Your task to perform on an android device: What is the capital of India? Image 0: 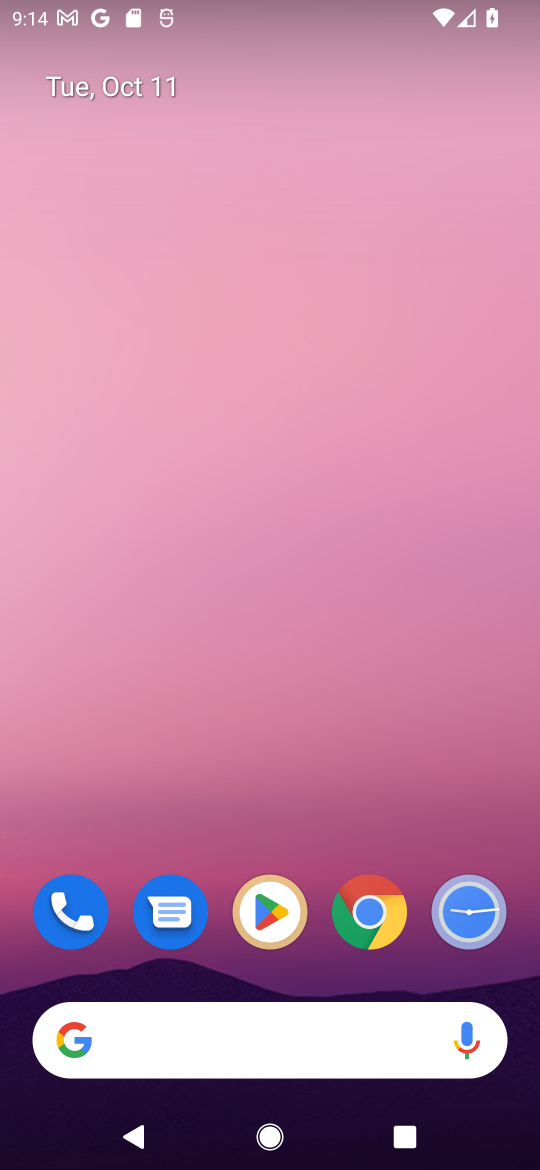
Step 0: click (374, 911)
Your task to perform on an android device: What is the capital of India? Image 1: 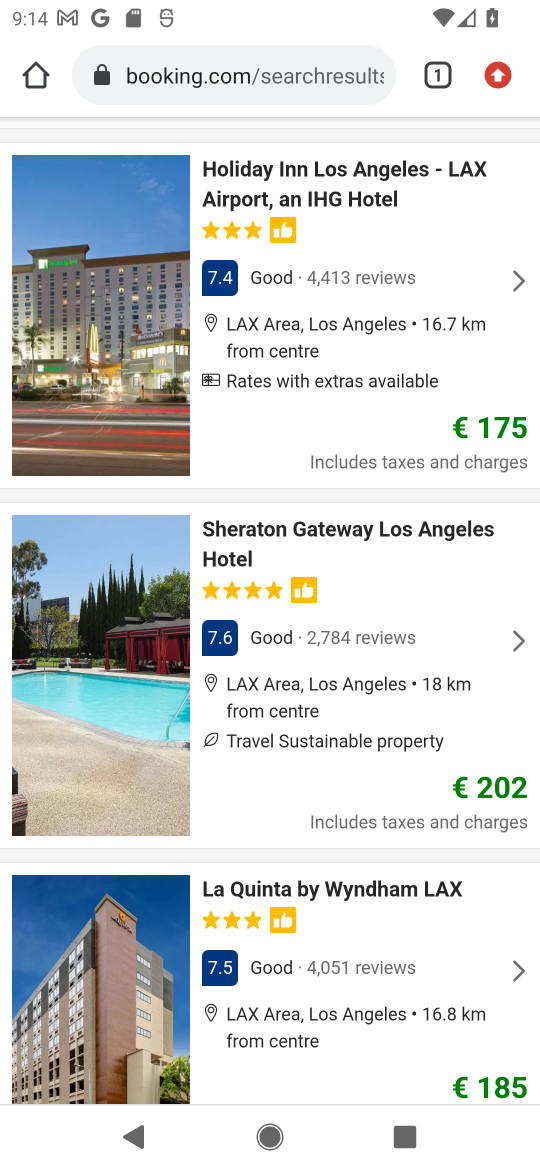
Step 1: click (240, 44)
Your task to perform on an android device: What is the capital of India? Image 2: 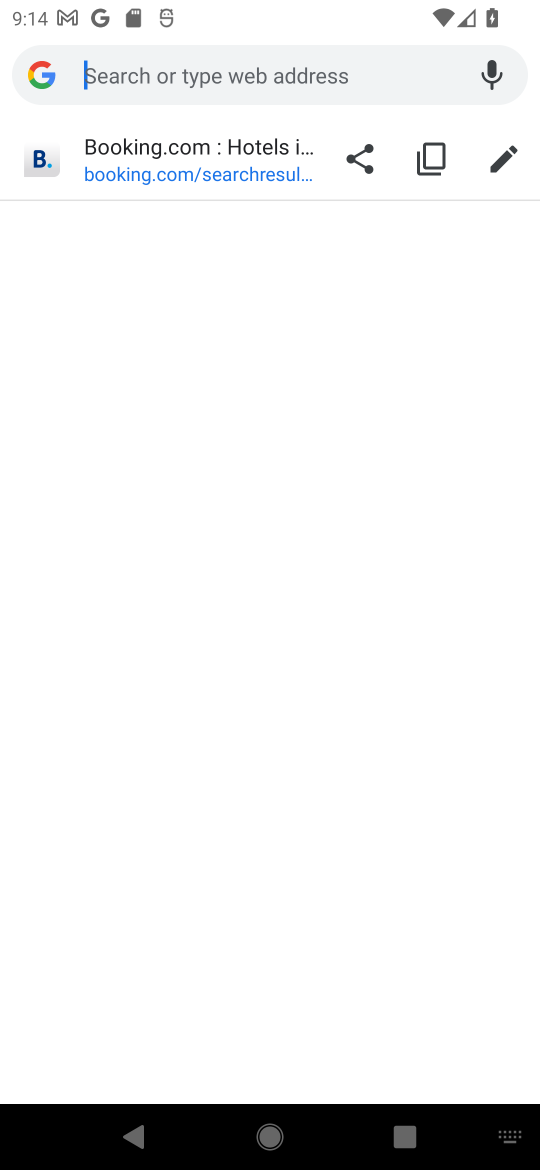
Step 2: type "capital of india"
Your task to perform on an android device: What is the capital of India? Image 3: 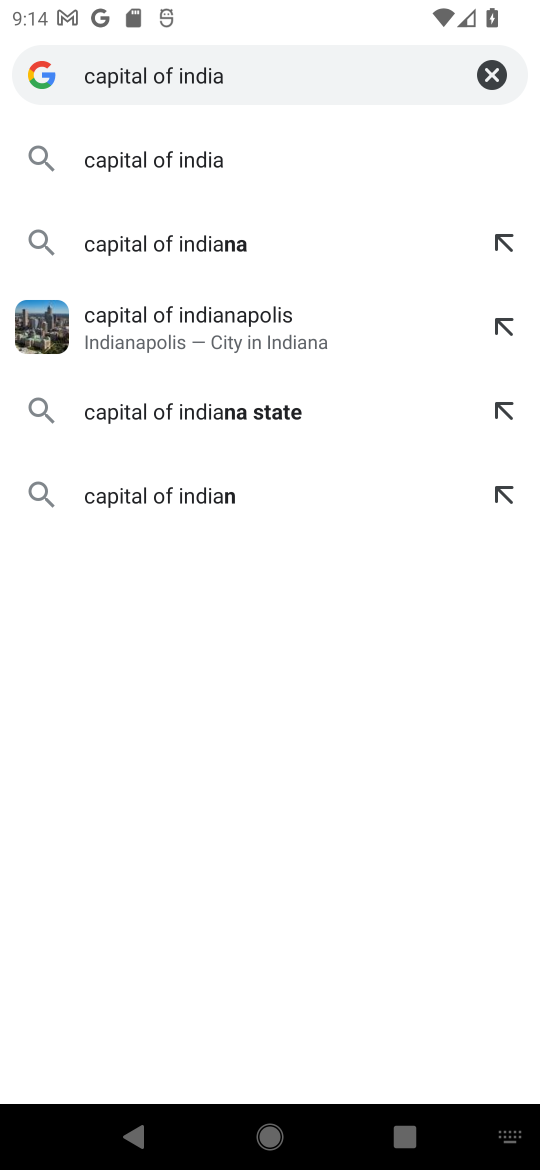
Step 3: click (137, 165)
Your task to perform on an android device: What is the capital of India? Image 4: 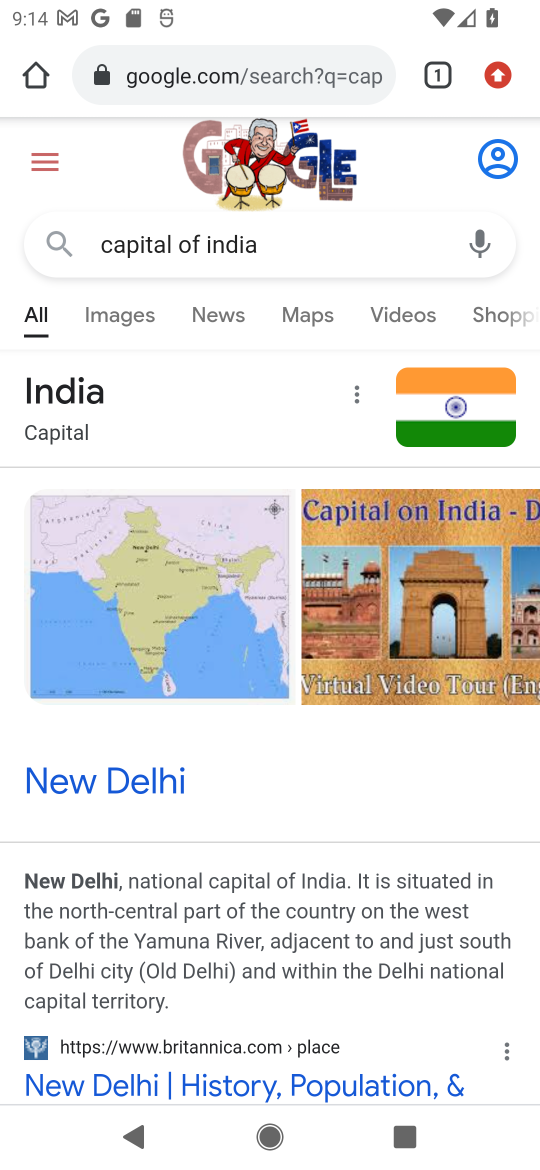
Step 4: task complete